Your task to perform on an android device: turn on data saver in the chrome app Image 0: 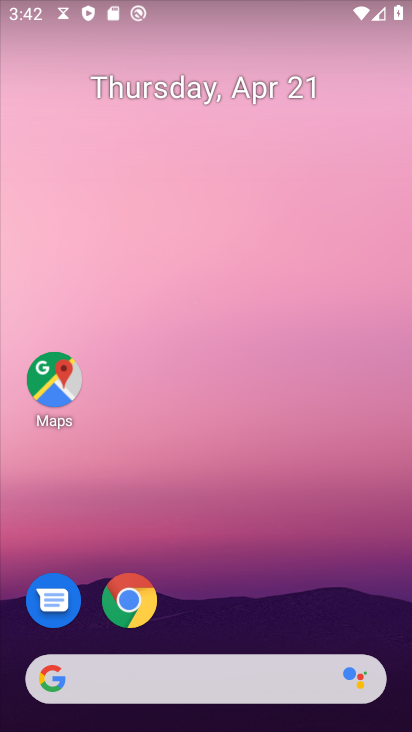
Step 0: click (129, 602)
Your task to perform on an android device: turn on data saver in the chrome app Image 1: 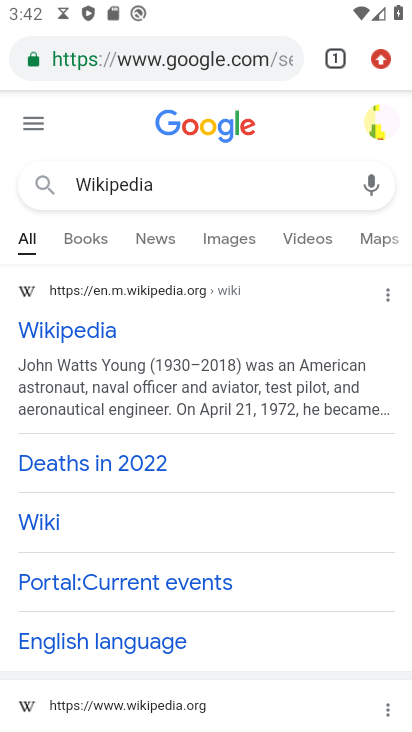
Step 1: click (384, 58)
Your task to perform on an android device: turn on data saver in the chrome app Image 2: 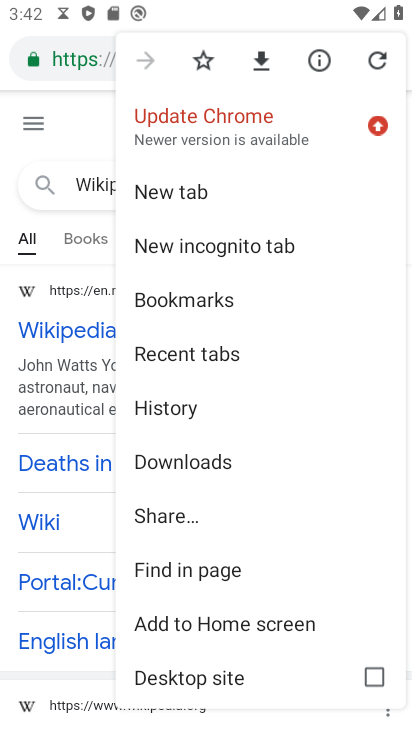
Step 2: drag from (224, 547) to (247, 434)
Your task to perform on an android device: turn on data saver in the chrome app Image 3: 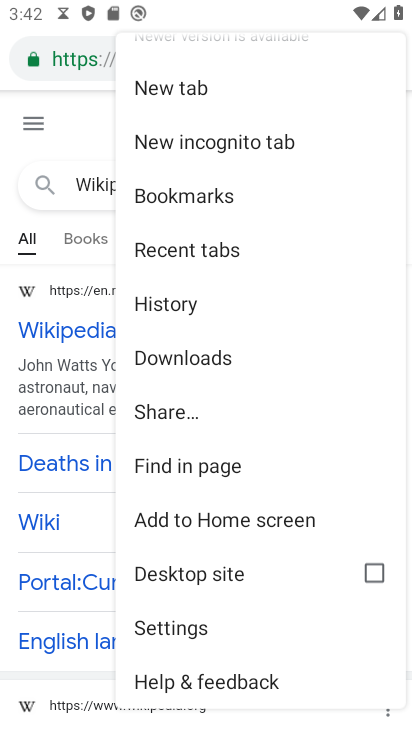
Step 3: drag from (210, 599) to (242, 449)
Your task to perform on an android device: turn on data saver in the chrome app Image 4: 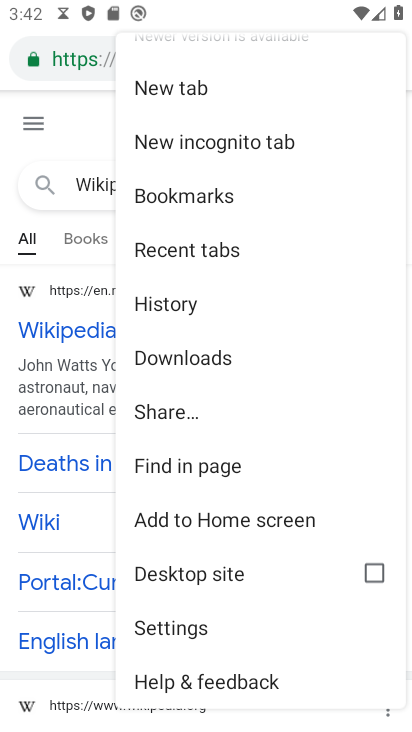
Step 4: click (182, 629)
Your task to perform on an android device: turn on data saver in the chrome app Image 5: 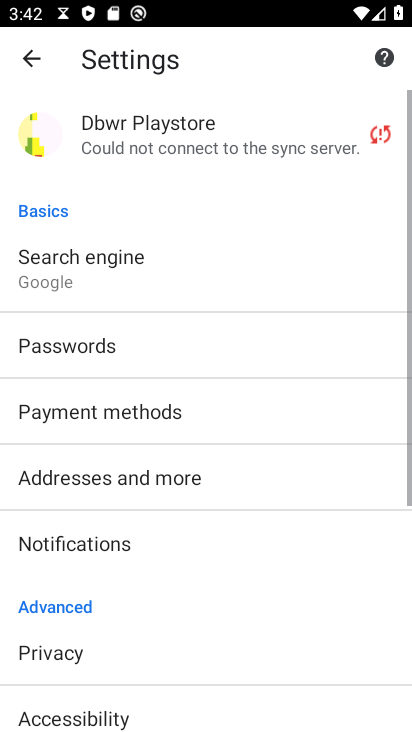
Step 5: drag from (180, 537) to (227, 346)
Your task to perform on an android device: turn on data saver in the chrome app Image 6: 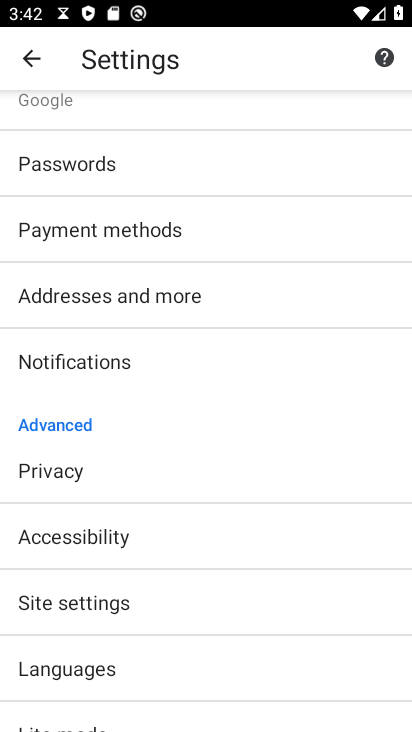
Step 6: drag from (153, 486) to (166, 358)
Your task to perform on an android device: turn on data saver in the chrome app Image 7: 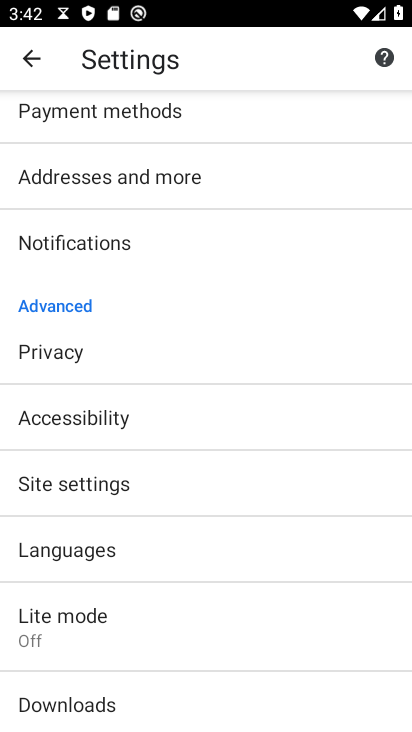
Step 7: click (86, 613)
Your task to perform on an android device: turn on data saver in the chrome app Image 8: 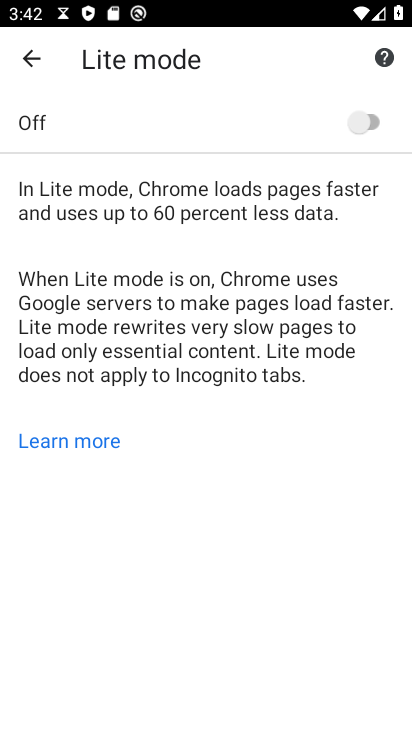
Step 8: click (369, 126)
Your task to perform on an android device: turn on data saver in the chrome app Image 9: 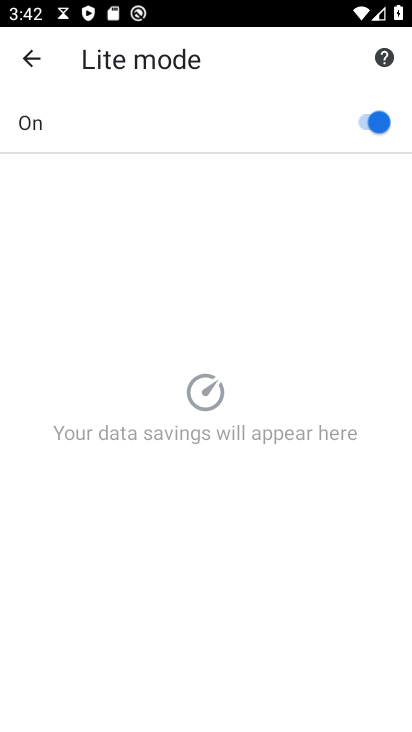
Step 9: task complete